Your task to perform on an android device: turn on data saver in the chrome app Image 0: 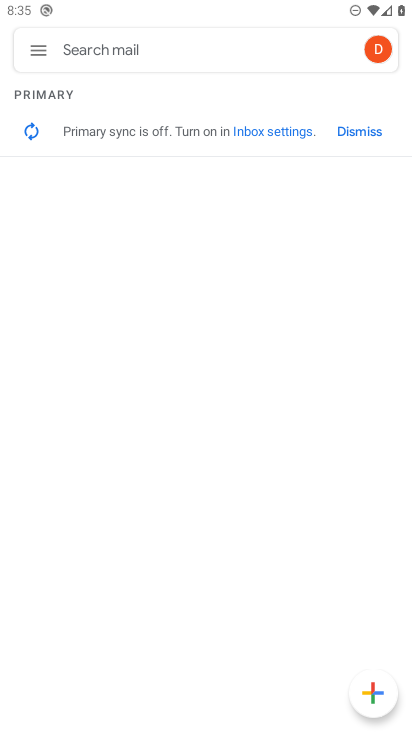
Step 0: press home button
Your task to perform on an android device: turn on data saver in the chrome app Image 1: 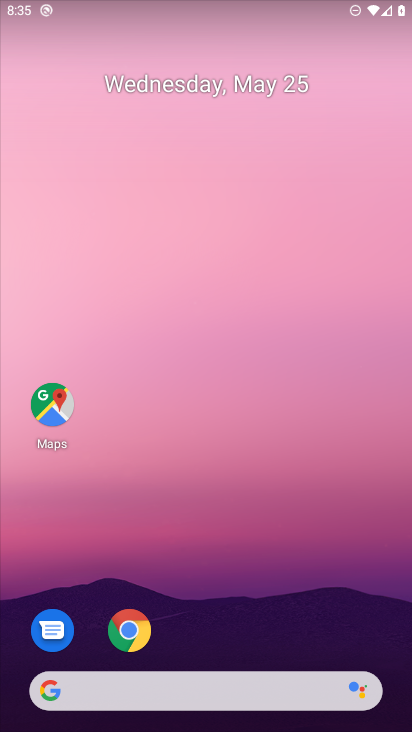
Step 1: drag from (235, 670) to (253, 334)
Your task to perform on an android device: turn on data saver in the chrome app Image 2: 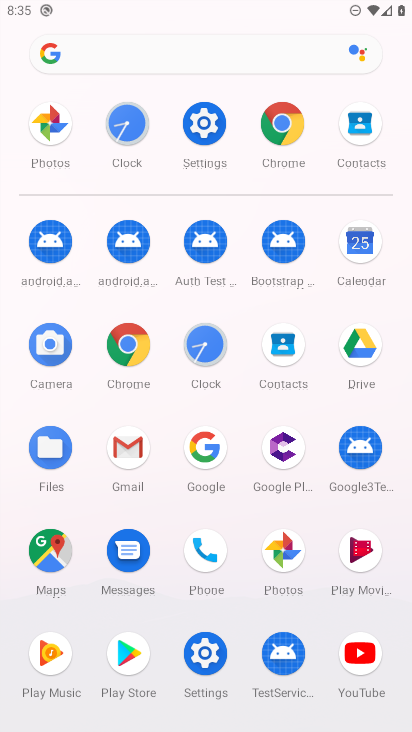
Step 2: click (140, 353)
Your task to perform on an android device: turn on data saver in the chrome app Image 3: 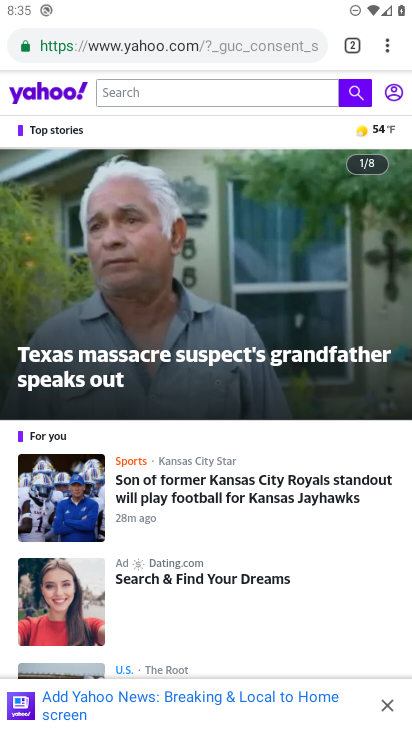
Step 3: click (388, 41)
Your task to perform on an android device: turn on data saver in the chrome app Image 4: 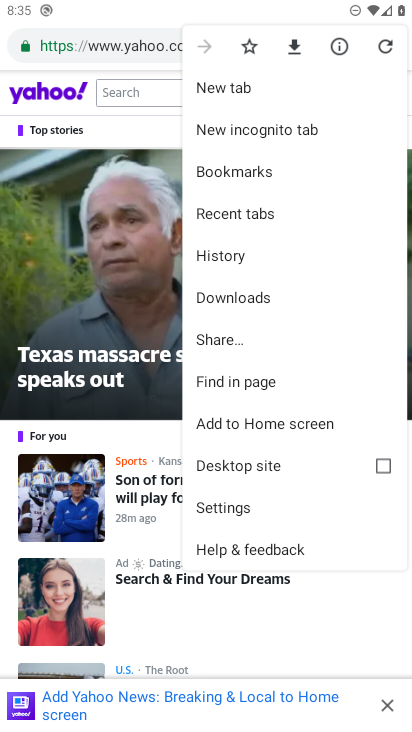
Step 4: click (250, 499)
Your task to perform on an android device: turn on data saver in the chrome app Image 5: 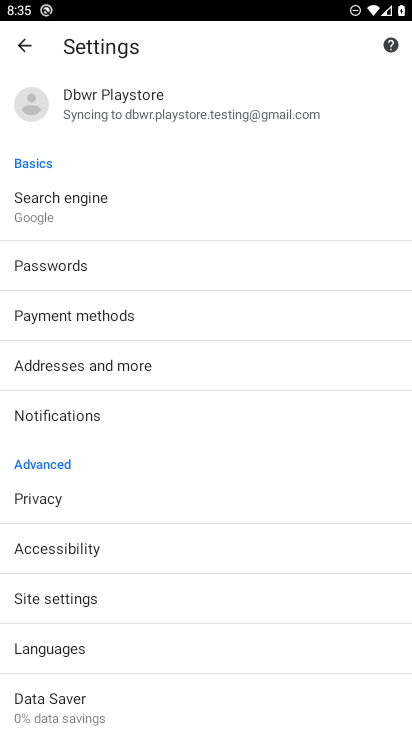
Step 5: click (55, 701)
Your task to perform on an android device: turn on data saver in the chrome app Image 6: 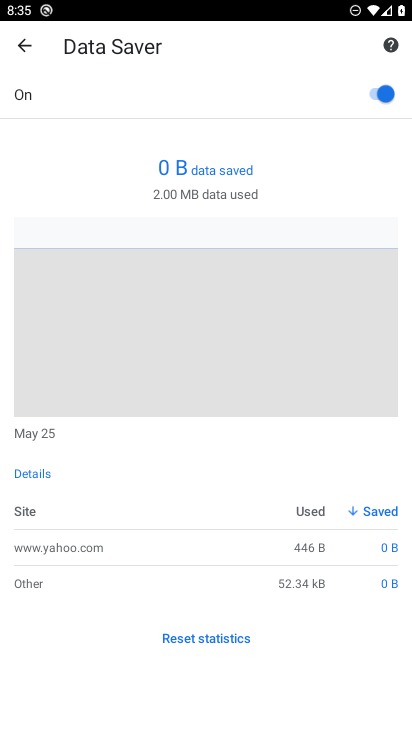
Step 6: task complete